Your task to perform on an android device: Go to settings Image 0: 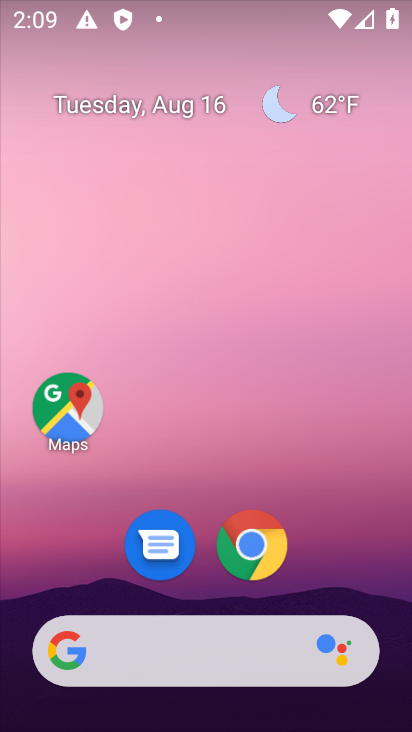
Step 0: drag from (214, 625) to (200, 140)
Your task to perform on an android device: Go to settings Image 1: 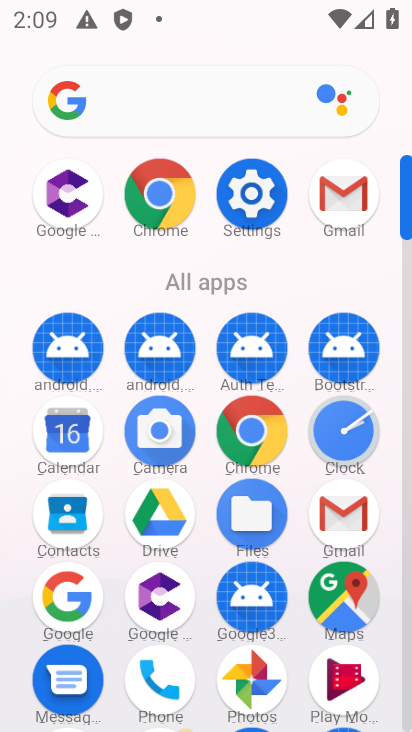
Step 1: click (243, 185)
Your task to perform on an android device: Go to settings Image 2: 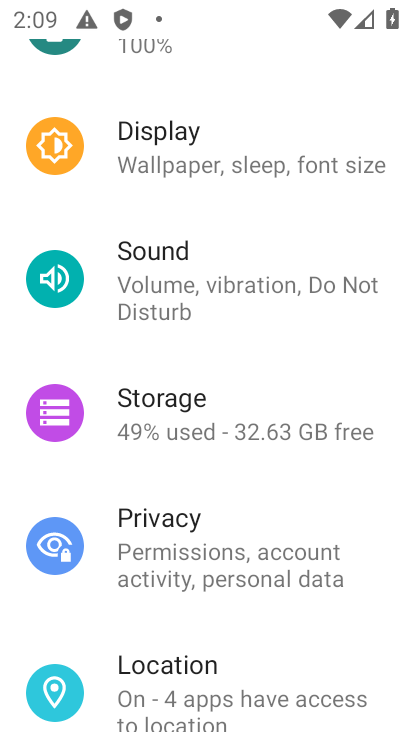
Step 2: task complete